Your task to perform on an android device: Go to Google maps Image 0: 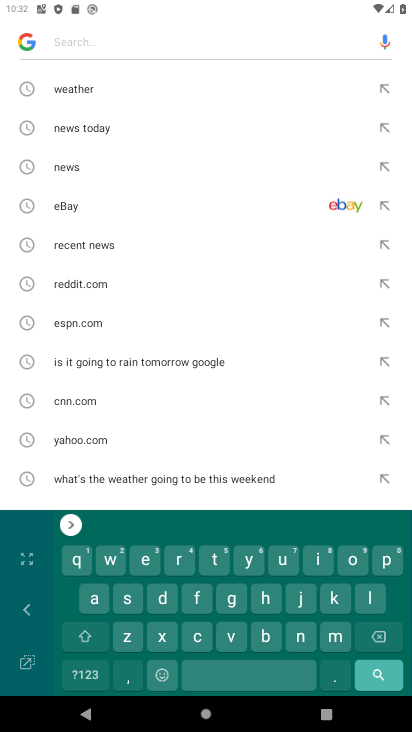
Step 0: press back button
Your task to perform on an android device: Go to Google maps Image 1: 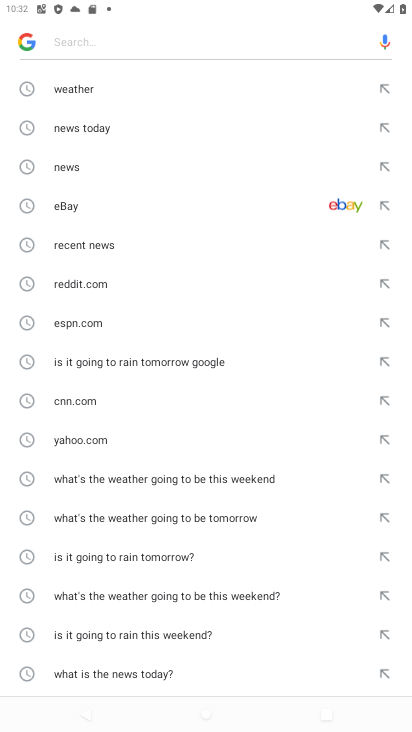
Step 1: press back button
Your task to perform on an android device: Go to Google maps Image 2: 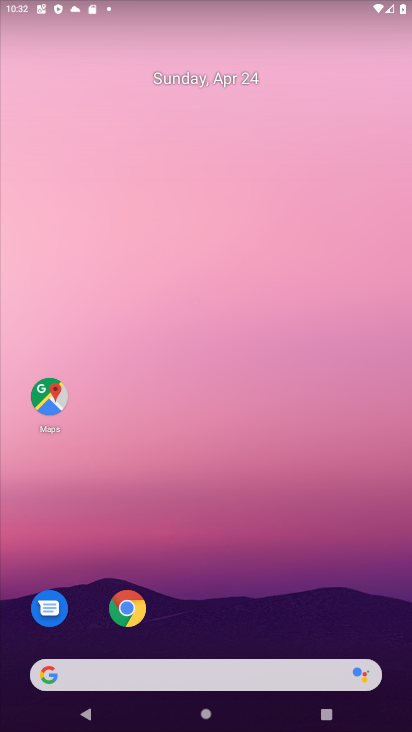
Step 2: drag from (299, 541) to (331, 182)
Your task to perform on an android device: Go to Google maps Image 3: 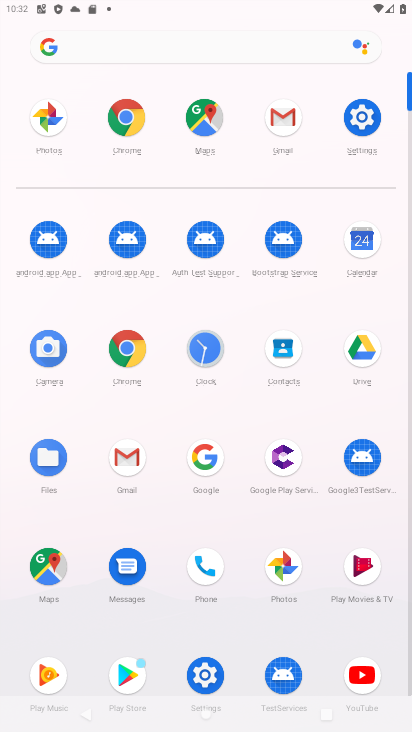
Step 3: click (53, 578)
Your task to perform on an android device: Go to Google maps Image 4: 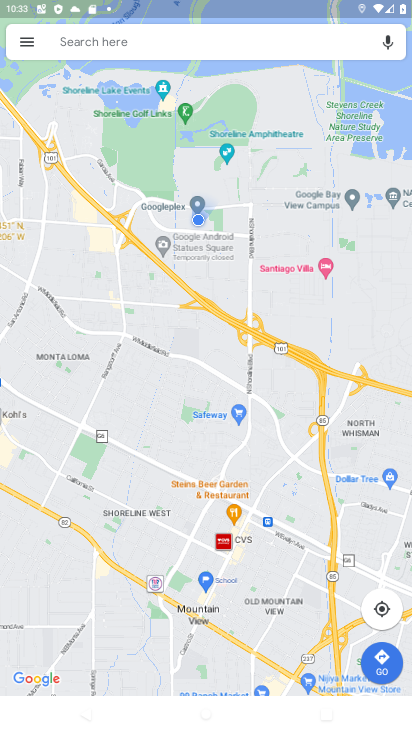
Step 4: task complete